Your task to perform on an android device: Open settings Image 0: 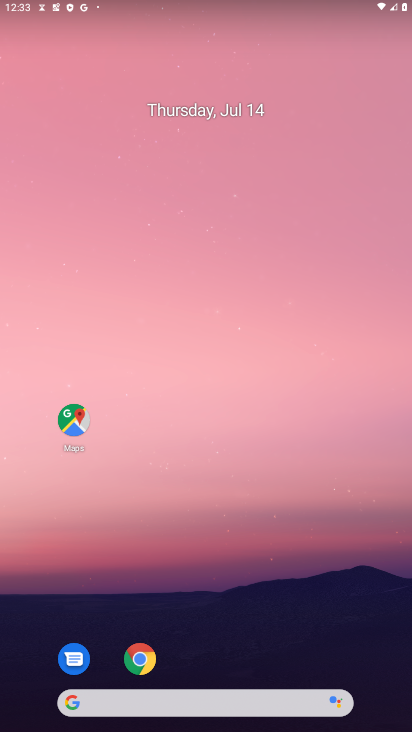
Step 0: drag from (261, 342) to (369, 226)
Your task to perform on an android device: Open settings Image 1: 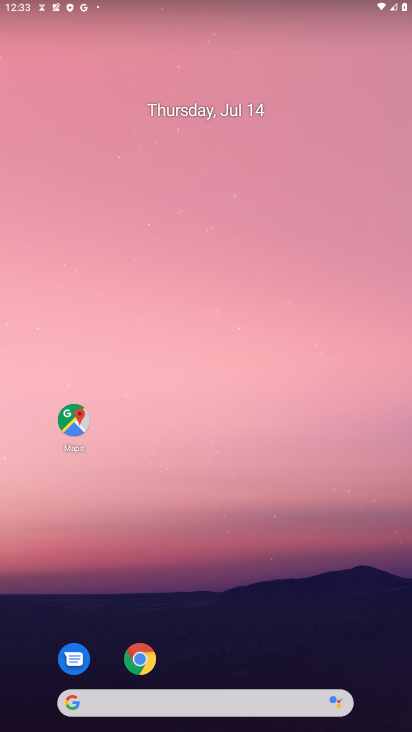
Step 1: drag from (35, 695) to (393, 103)
Your task to perform on an android device: Open settings Image 2: 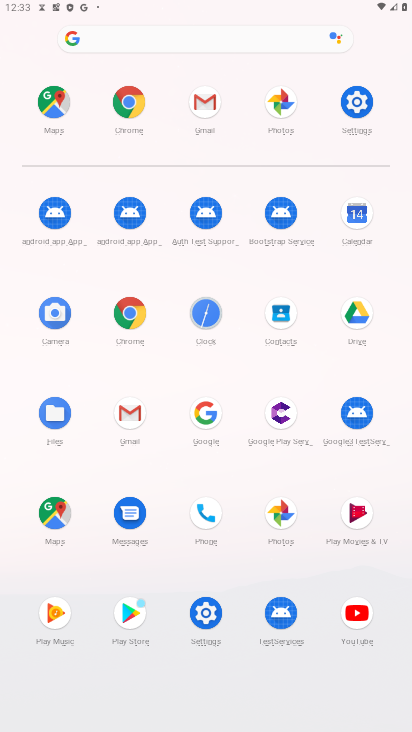
Step 2: click (214, 603)
Your task to perform on an android device: Open settings Image 3: 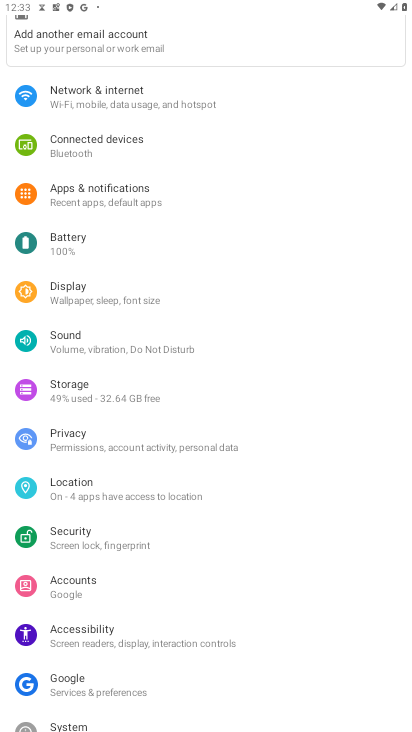
Step 3: task complete